Your task to perform on an android device: Play the last video I watched on Youtube Image 0: 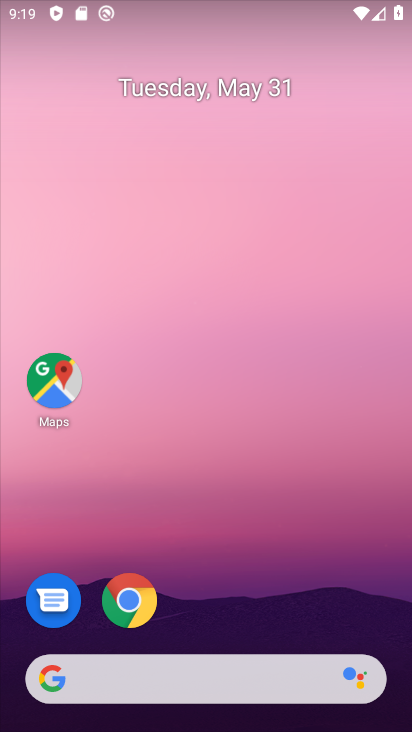
Step 0: drag from (239, 613) to (286, 59)
Your task to perform on an android device: Play the last video I watched on Youtube Image 1: 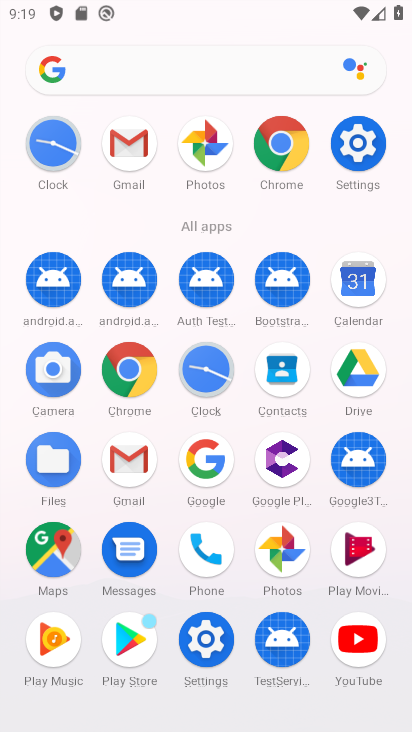
Step 1: click (337, 649)
Your task to perform on an android device: Play the last video I watched on Youtube Image 2: 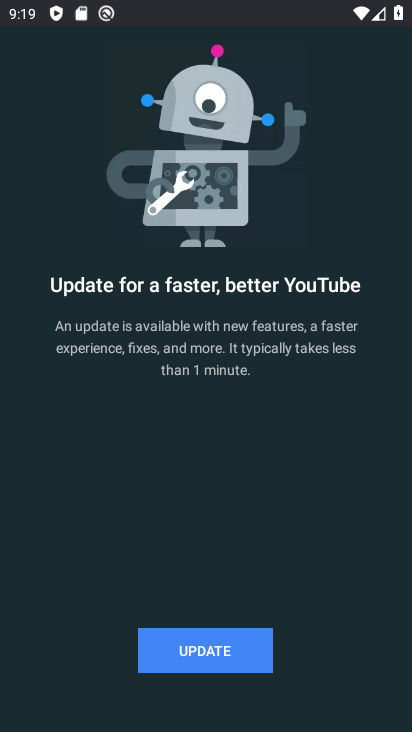
Step 2: click (195, 653)
Your task to perform on an android device: Play the last video I watched on Youtube Image 3: 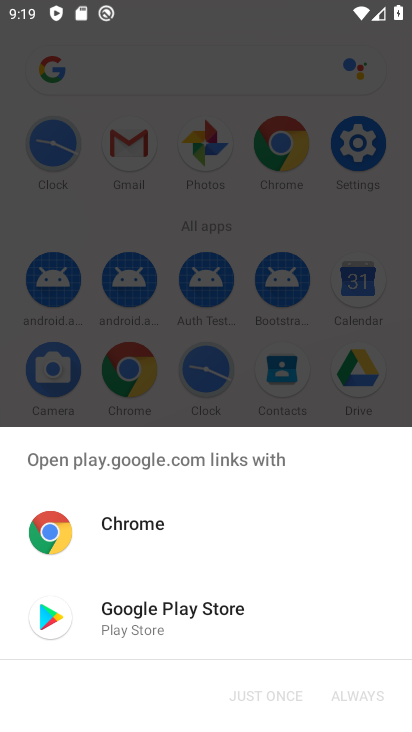
Step 3: click (164, 626)
Your task to perform on an android device: Play the last video I watched on Youtube Image 4: 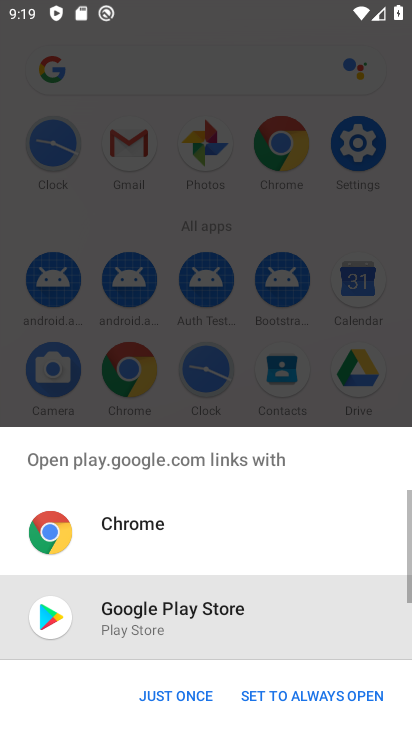
Step 4: click (175, 697)
Your task to perform on an android device: Play the last video I watched on Youtube Image 5: 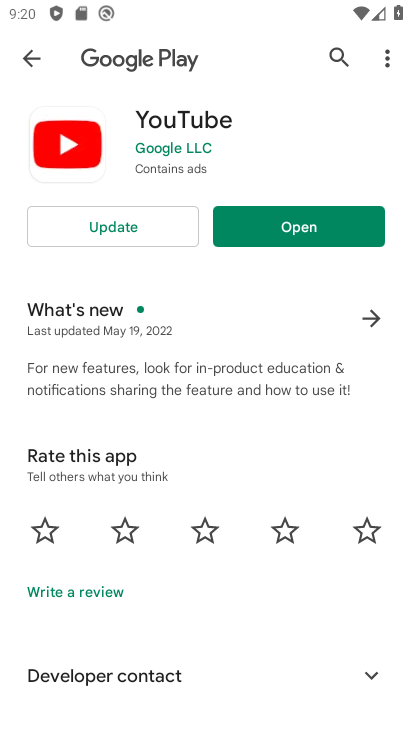
Step 5: click (122, 236)
Your task to perform on an android device: Play the last video I watched on Youtube Image 6: 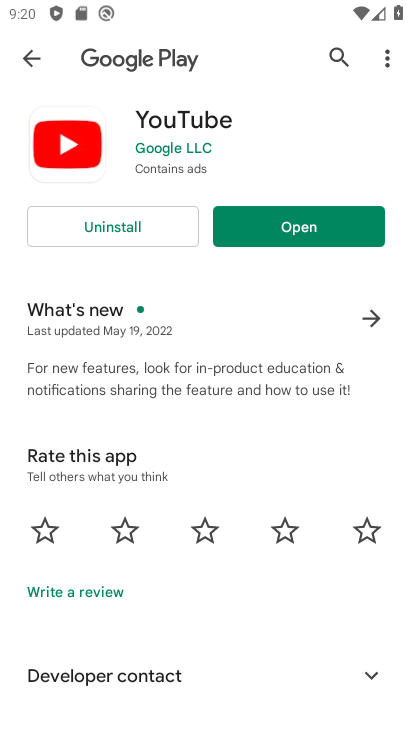
Step 6: click (288, 240)
Your task to perform on an android device: Play the last video I watched on Youtube Image 7: 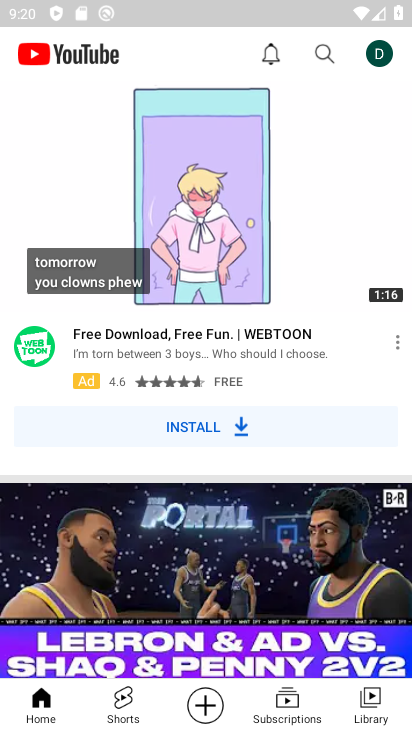
Step 7: click (367, 698)
Your task to perform on an android device: Play the last video I watched on Youtube Image 8: 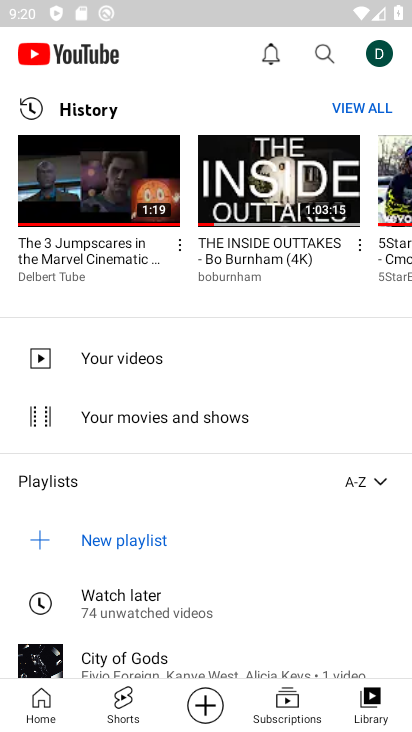
Step 8: click (91, 181)
Your task to perform on an android device: Play the last video I watched on Youtube Image 9: 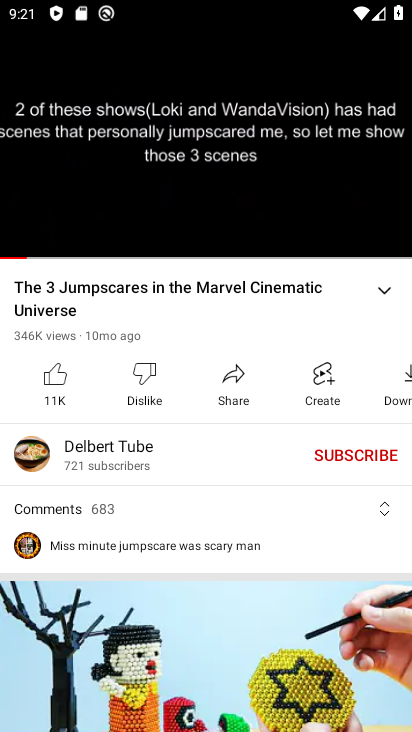
Step 9: click (181, 127)
Your task to perform on an android device: Play the last video I watched on Youtube Image 10: 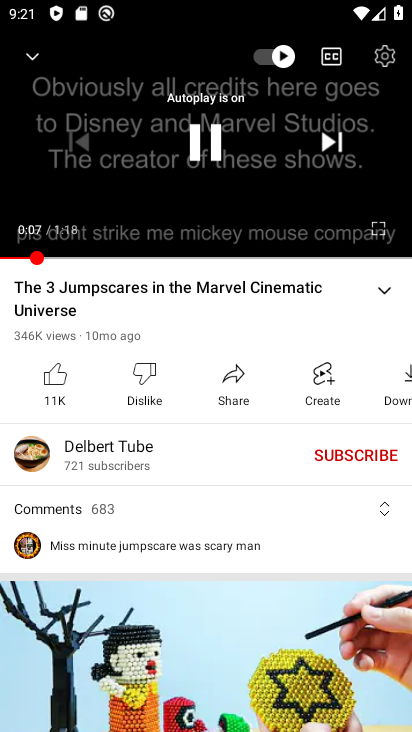
Step 10: click (198, 136)
Your task to perform on an android device: Play the last video I watched on Youtube Image 11: 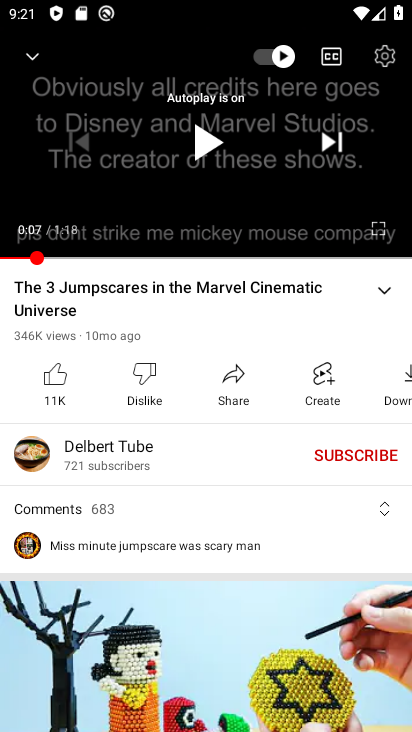
Step 11: task complete